Your task to perform on an android device: Open CNN.com Image 0: 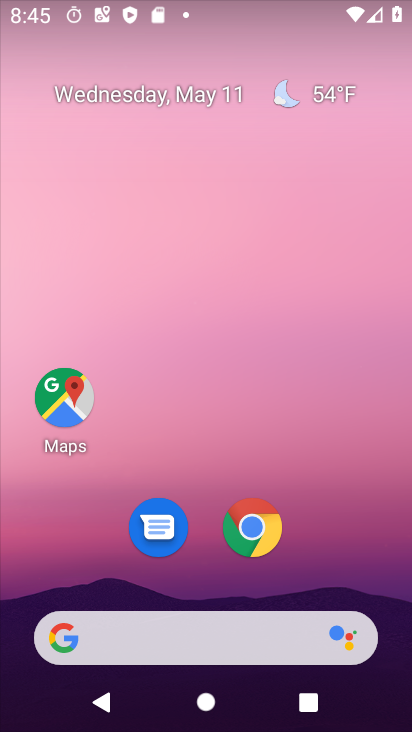
Step 0: drag from (195, 572) to (200, 97)
Your task to perform on an android device: Open CNN.com Image 1: 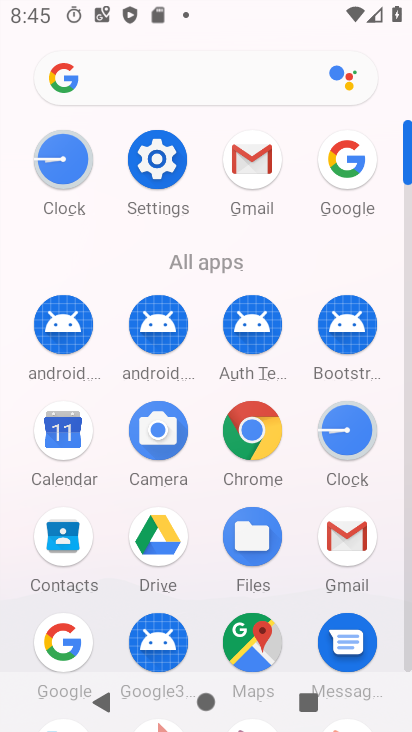
Step 1: click (346, 160)
Your task to perform on an android device: Open CNN.com Image 2: 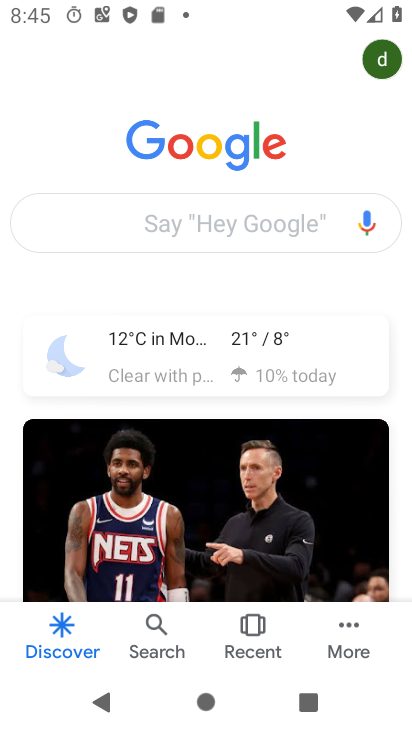
Step 2: click (200, 226)
Your task to perform on an android device: Open CNN.com Image 3: 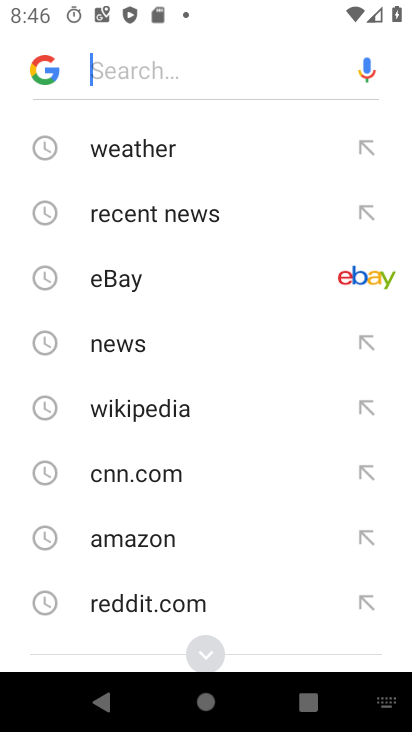
Step 3: drag from (207, 495) to (223, 268)
Your task to perform on an android device: Open CNN.com Image 4: 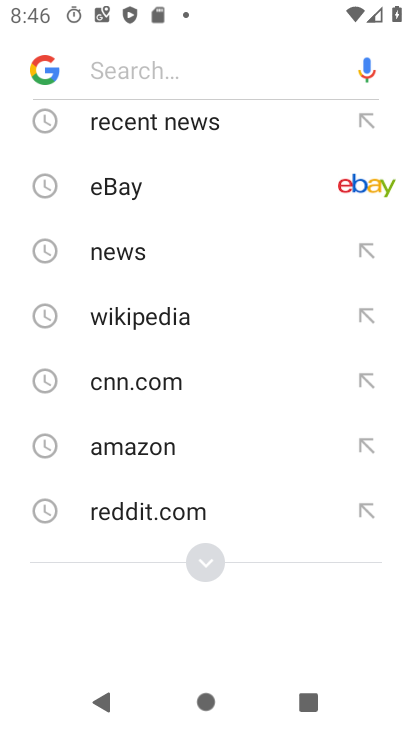
Step 4: click (151, 383)
Your task to perform on an android device: Open CNN.com Image 5: 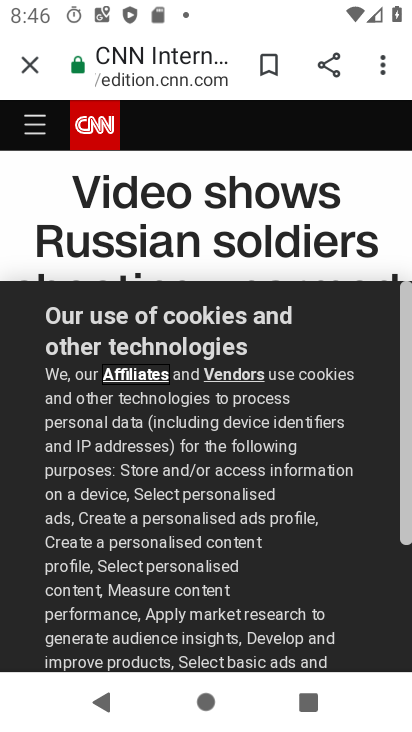
Step 5: task complete